Your task to perform on an android device: turn off translation in the chrome app Image 0: 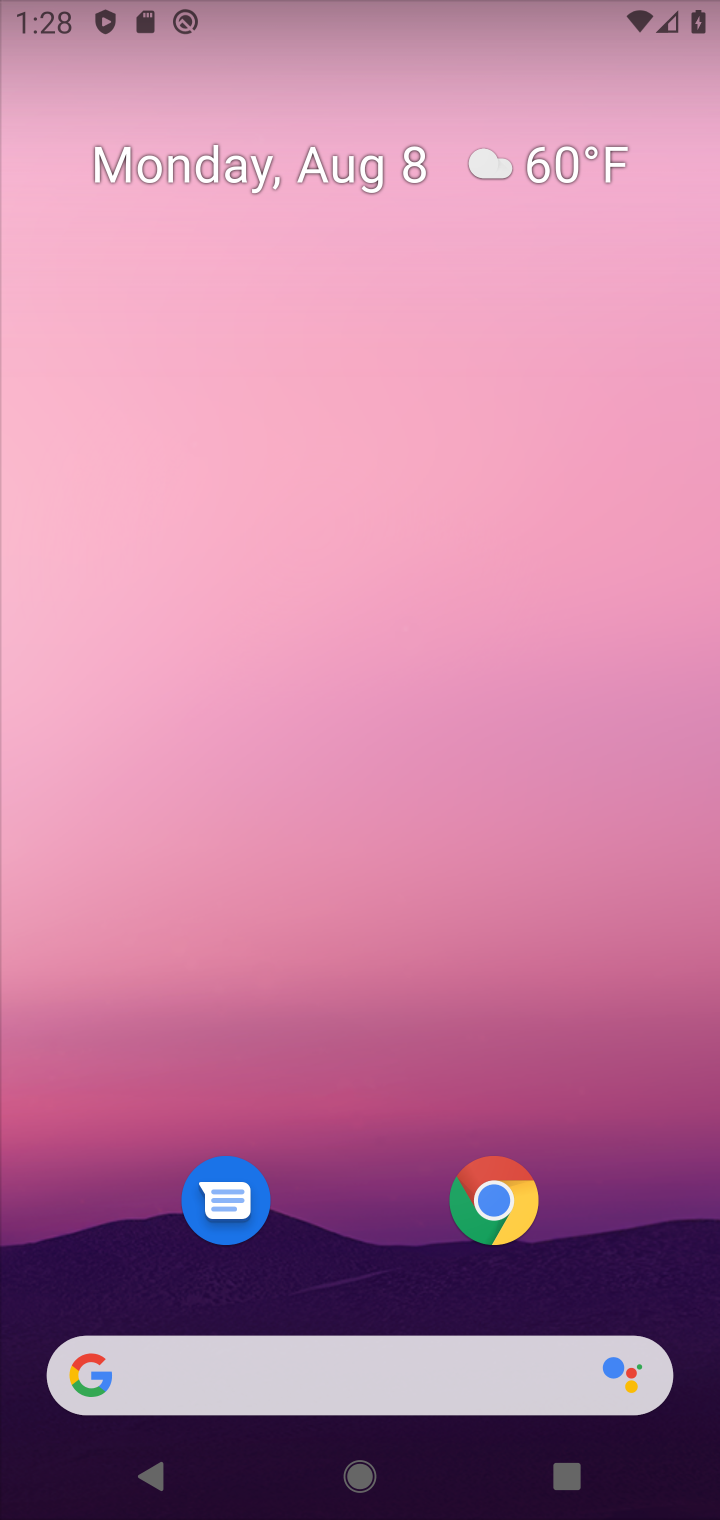
Step 0: press home button
Your task to perform on an android device: turn off translation in the chrome app Image 1: 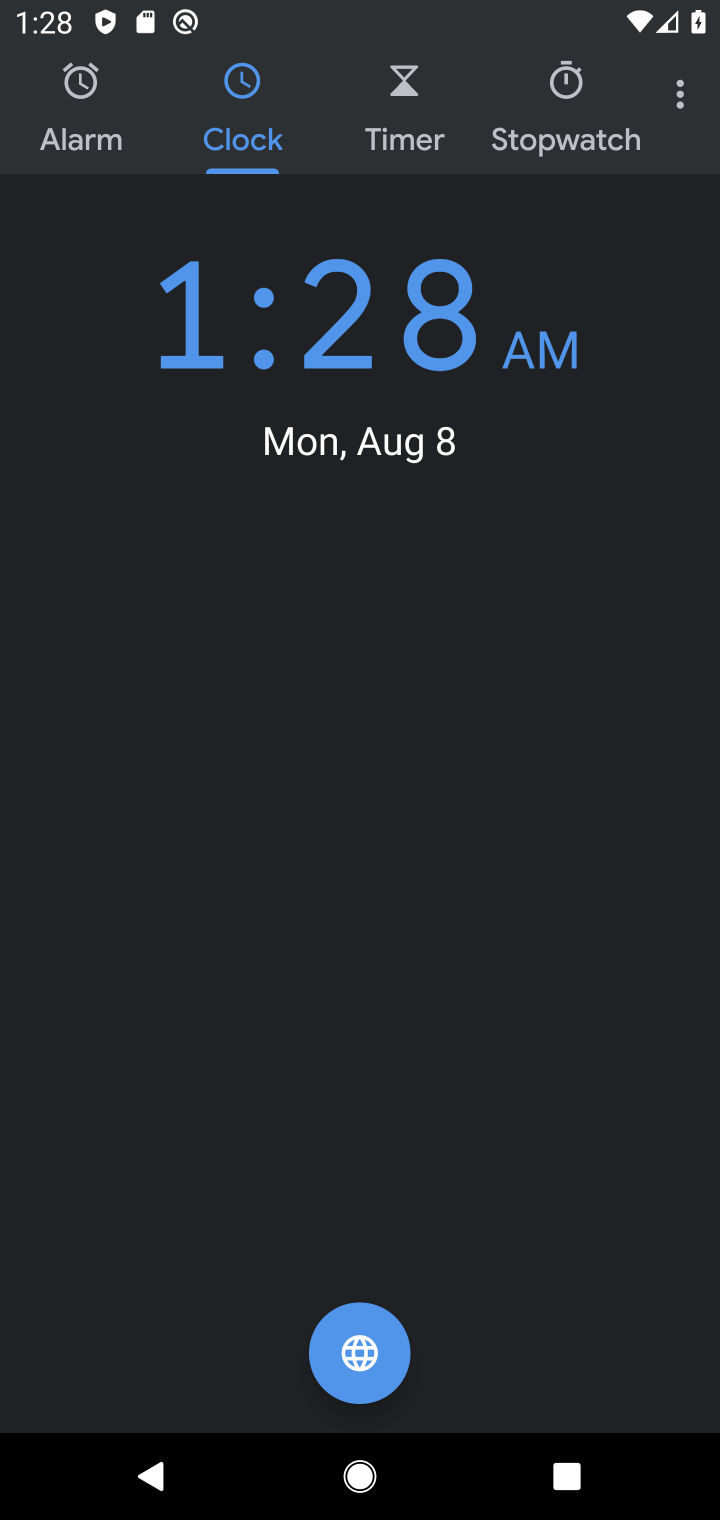
Step 1: click (374, 128)
Your task to perform on an android device: turn off translation in the chrome app Image 2: 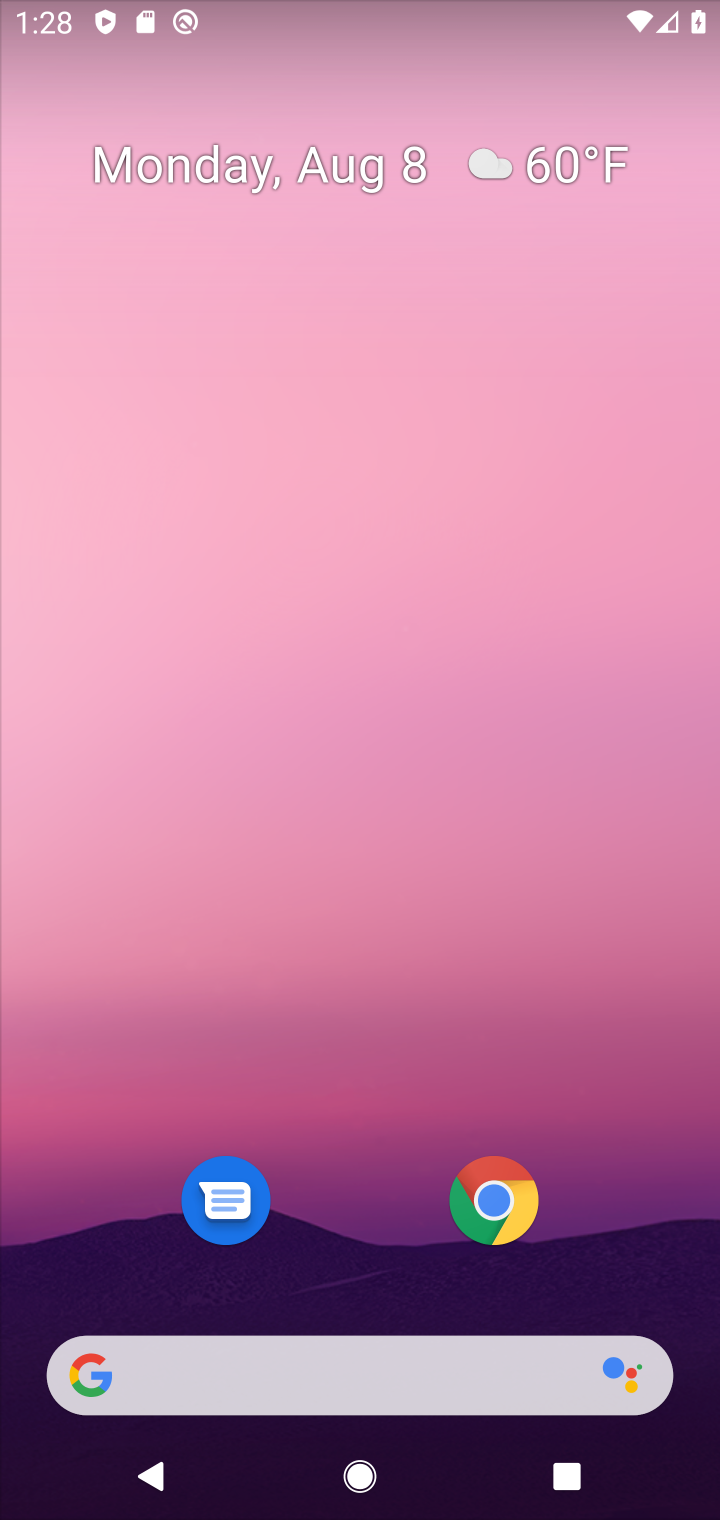
Step 2: drag from (395, 1031) to (409, 188)
Your task to perform on an android device: turn off translation in the chrome app Image 3: 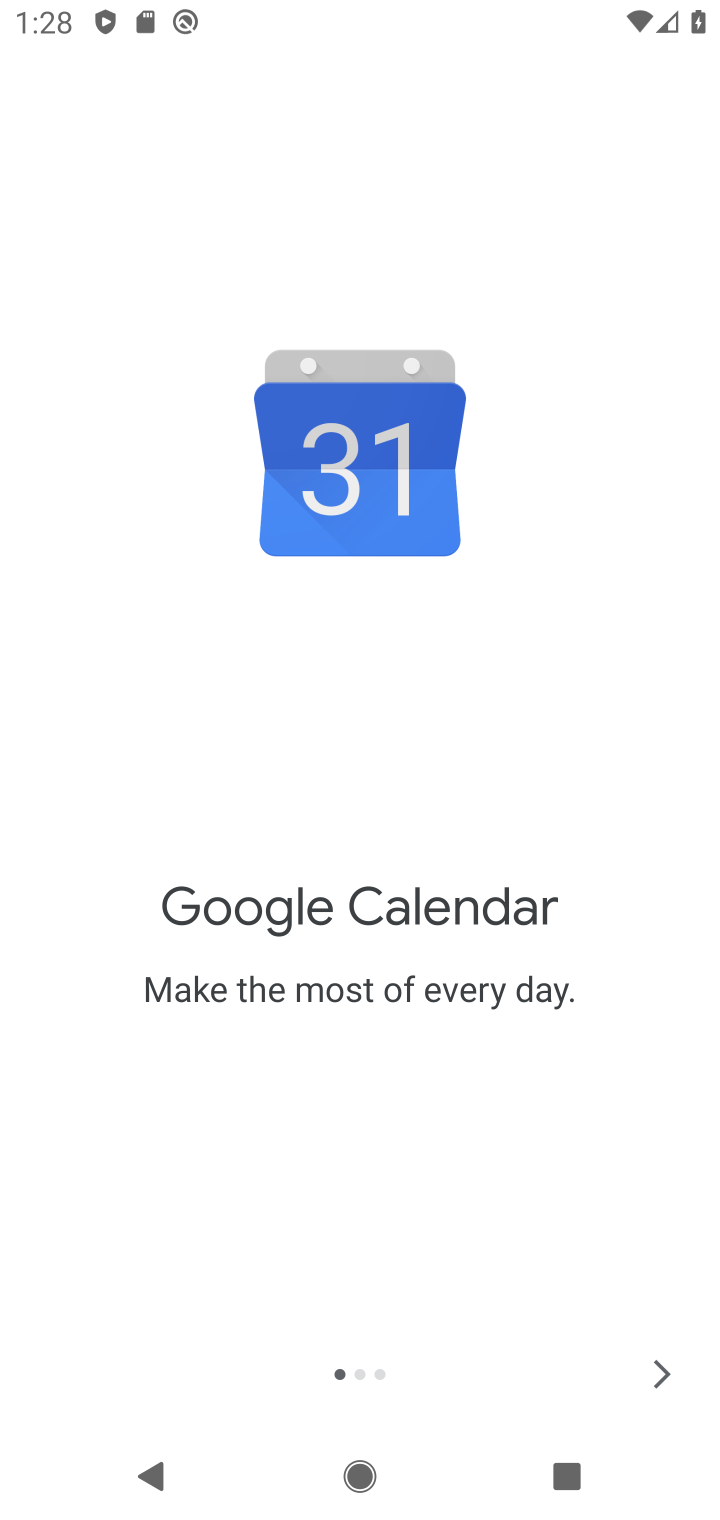
Step 3: press home button
Your task to perform on an android device: turn off translation in the chrome app Image 4: 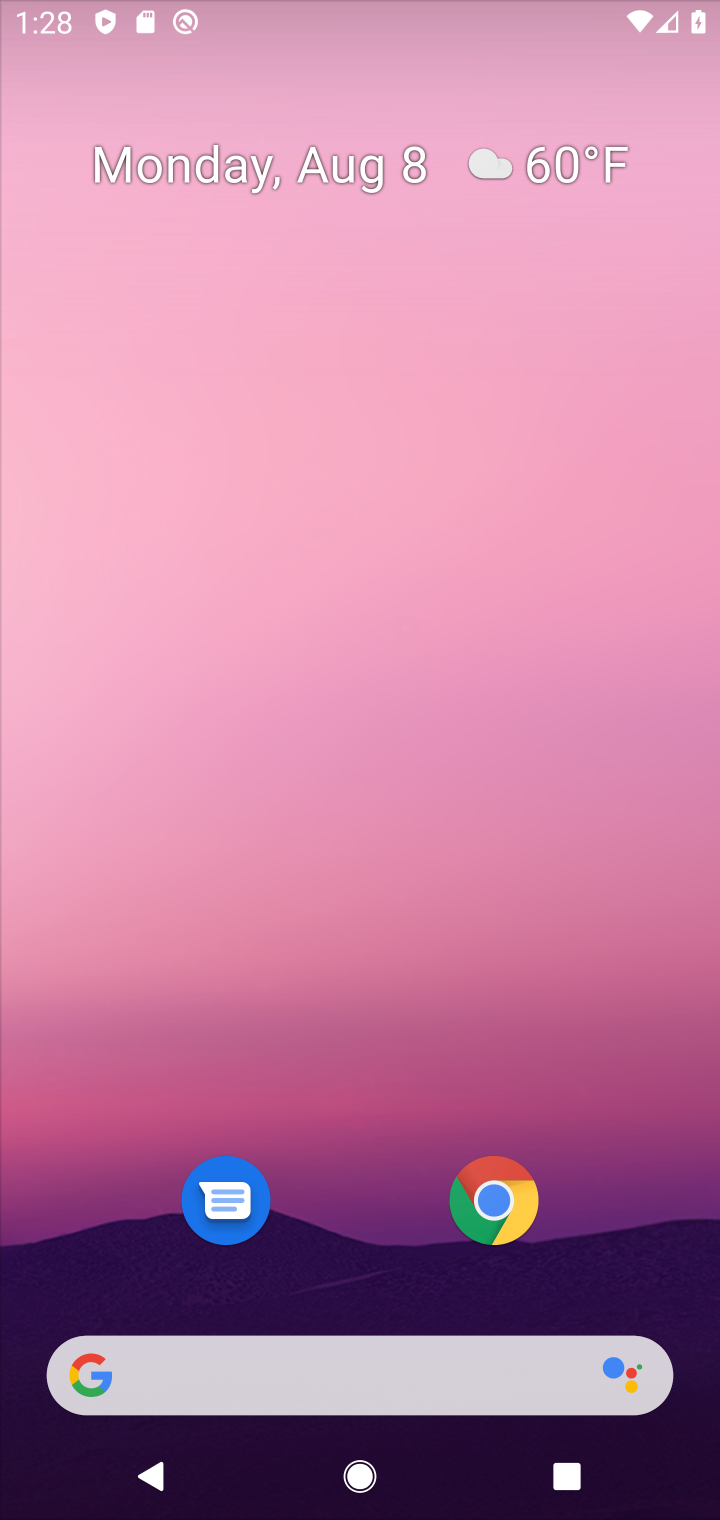
Step 4: drag from (375, 1292) to (352, 189)
Your task to perform on an android device: turn off translation in the chrome app Image 5: 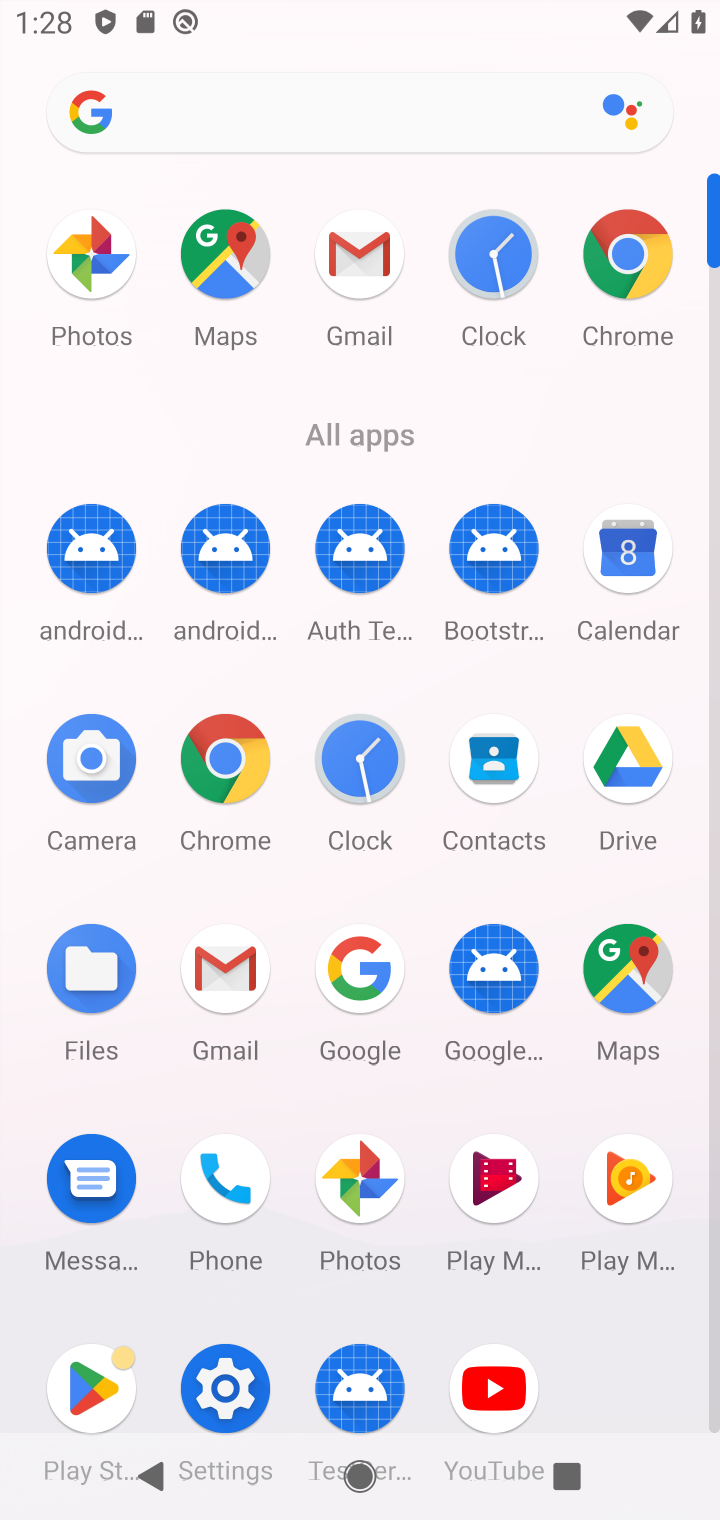
Step 5: click (631, 246)
Your task to perform on an android device: turn off translation in the chrome app Image 6: 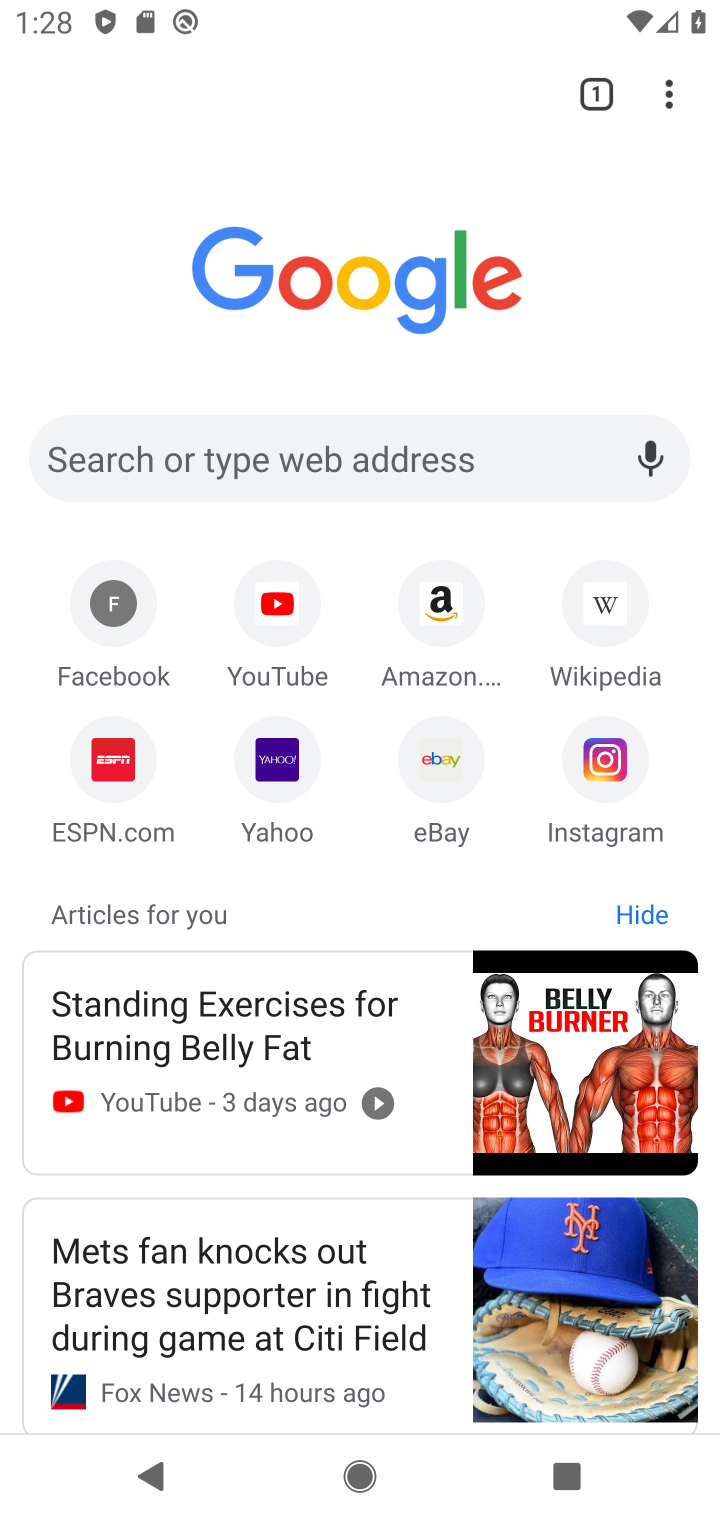
Step 6: click (665, 86)
Your task to perform on an android device: turn off translation in the chrome app Image 7: 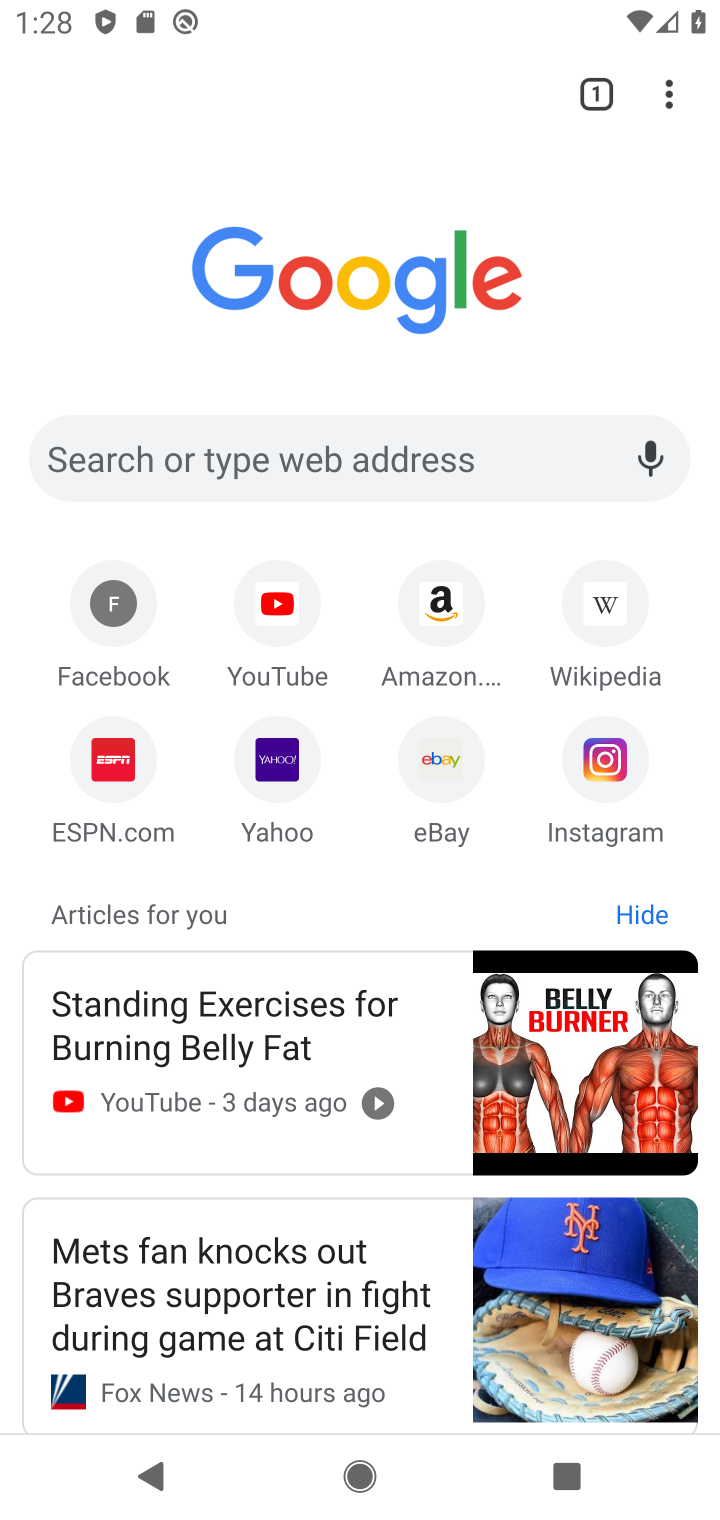
Step 7: click (676, 98)
Your task to perform on an android device: turn off translation in the chrome app Image 8: 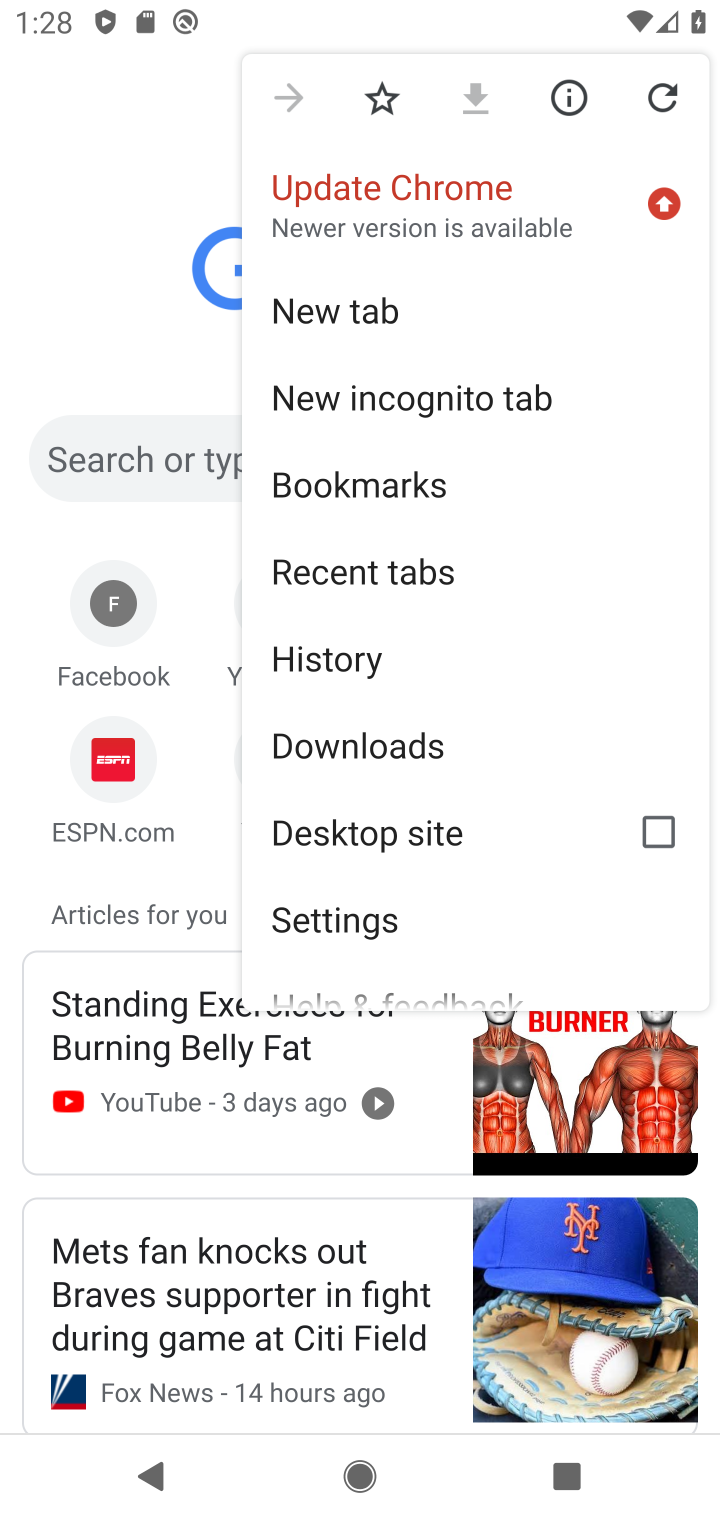
Step 8: click (404, 912)
Your task to perform on an android device: turn off translation in the chrome app Image 9: 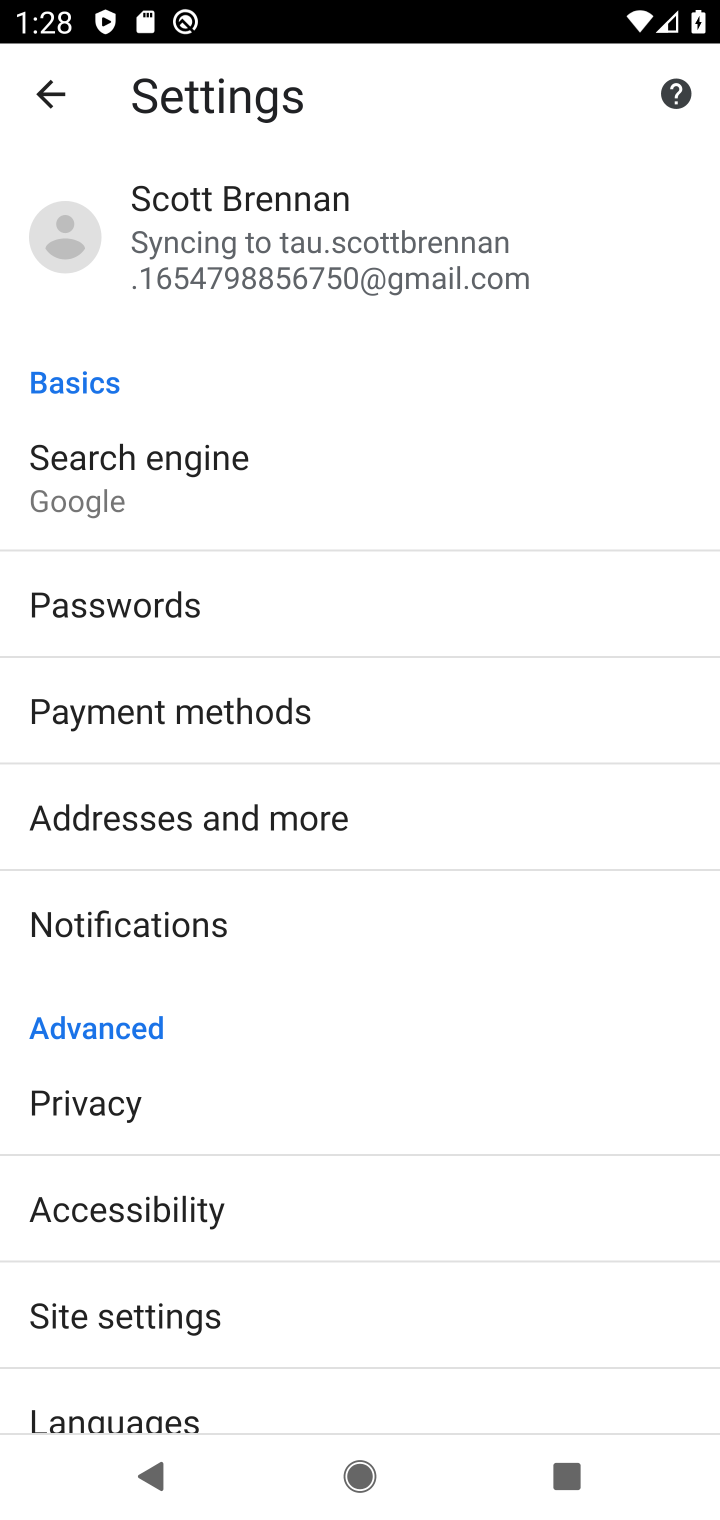
Step 9: click (223, 1411)
Your task to perform on an android device: turn off translation in the chrome app Image 10: 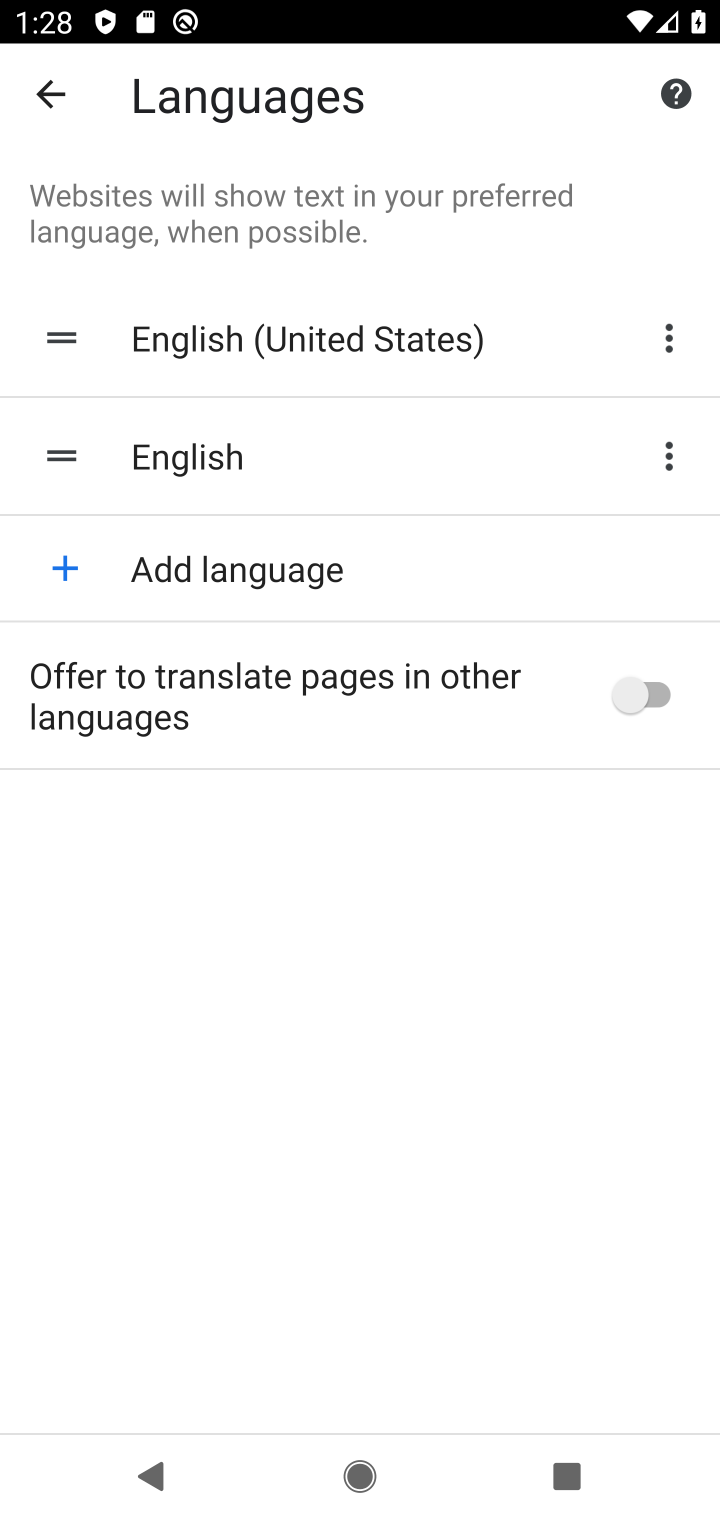
Step 10: task complete